Your task to perform on an android device: turn off improve location accuracy Image 0: 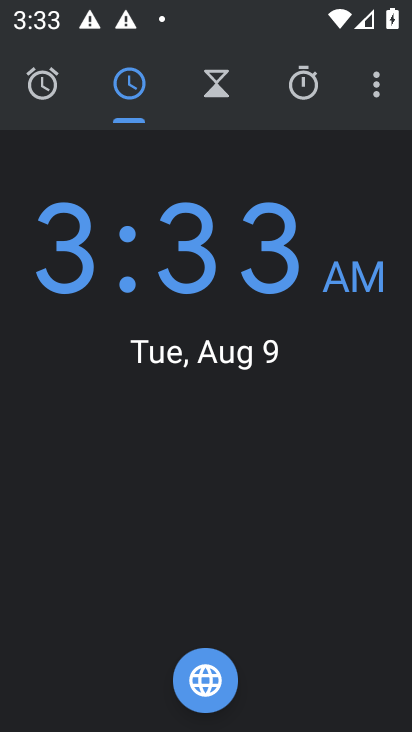
Step 0: press home button
Your task to perform on an android device: turn off improve location accuracy Image 1: 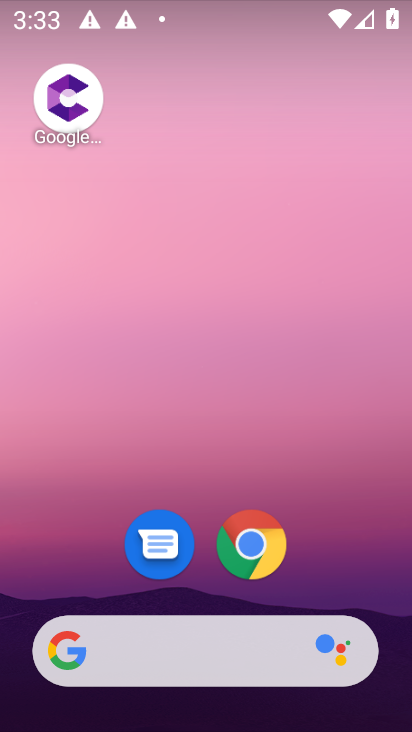
Step 1: drag from (116, 616) to (167, 192)
Your task to perform on an android device: turn off improve location accuracy Image 2: 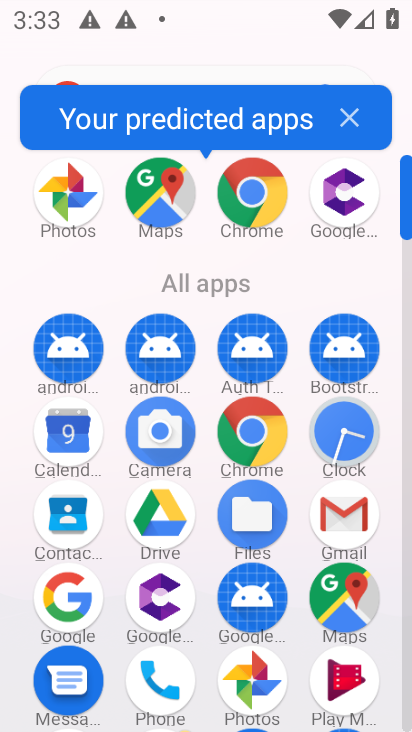
Step 2: drag from (287, 558) to (286, 294)
Your task to perform on an android device: turn off improve location accuracy Image 3: 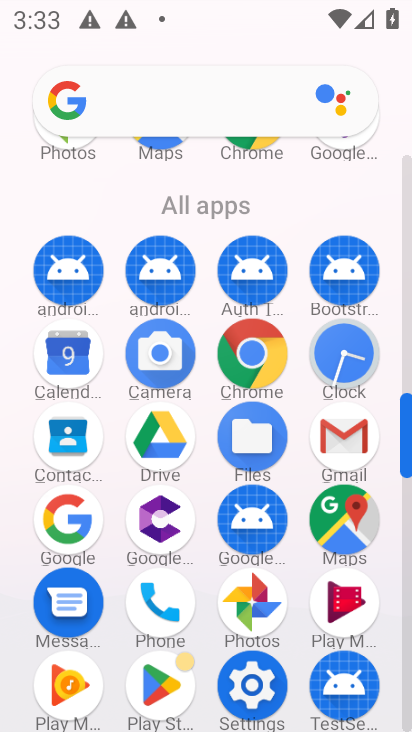
Step 3: click (246, 691)
Your task to perform on an android device: turn off improve location accuracy Image 4: 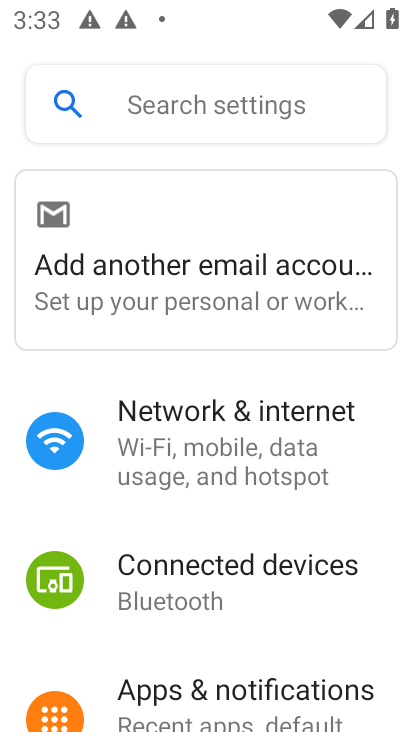
Step 4: drag from (174, 698) to (176, 408)
Your task to perform on an android device: turn off improve location accuracy Image 5: 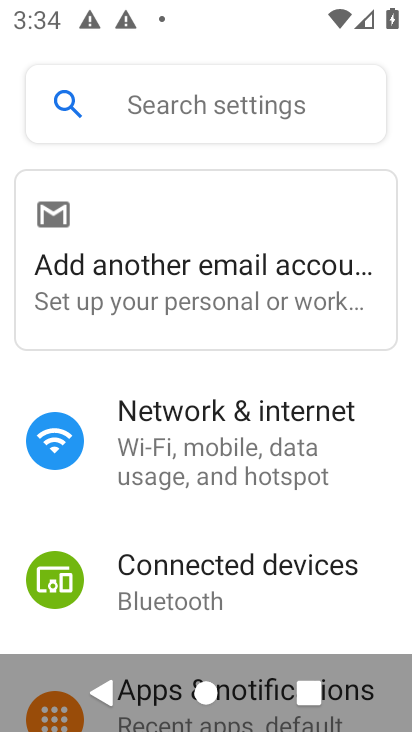
Step 5: drag from (185, 619) to (188, 283)
Your task to perform on an android device: turn off improve location accuracy Image 6: 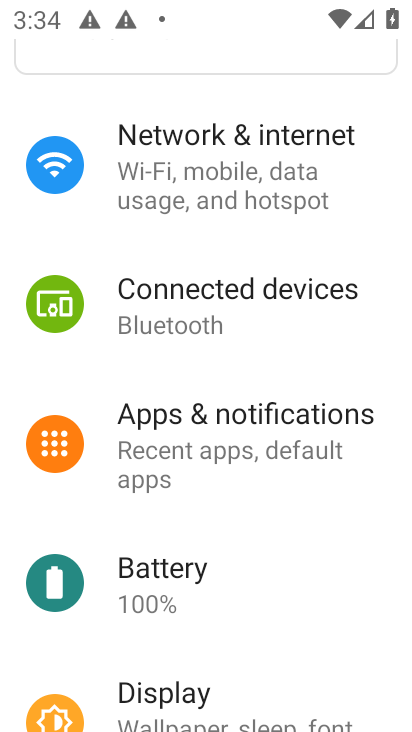
Step 6: drag from (170, 695) to (165, 408)
Your task to perform on an android device: turn off improve location accuracy Image 7: 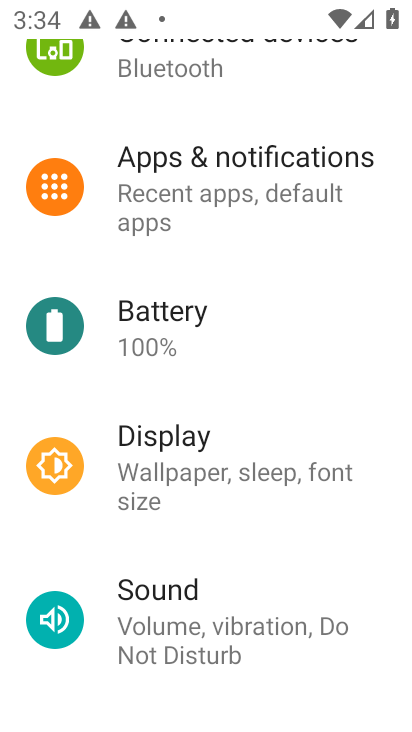
Step 7: drag from (181, 631) to (182, 311)
Your task to perform on an android device: turn off improve location accuracy Image 8: 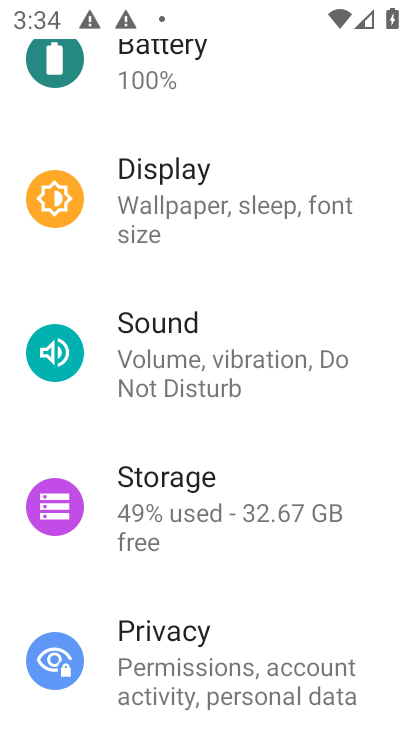
Step 8: drag from (178, 673) to (176, 393)
Your task to perform on an android device: turn off improve location accuracy Image 9: 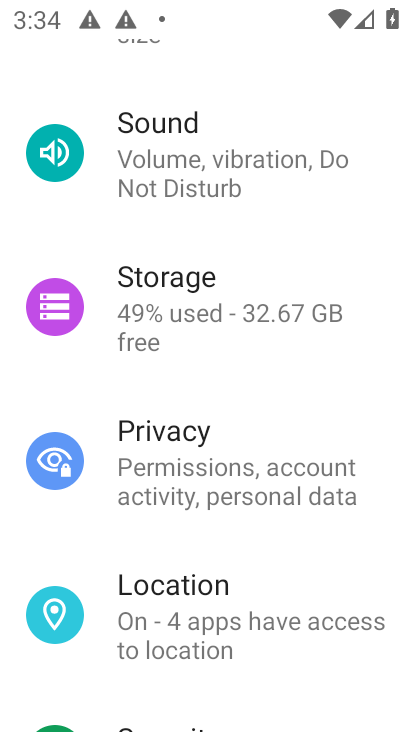
Step 9: click (184, 604)
Your task to perform on an android device: turn off improve location accuracy Image 10: 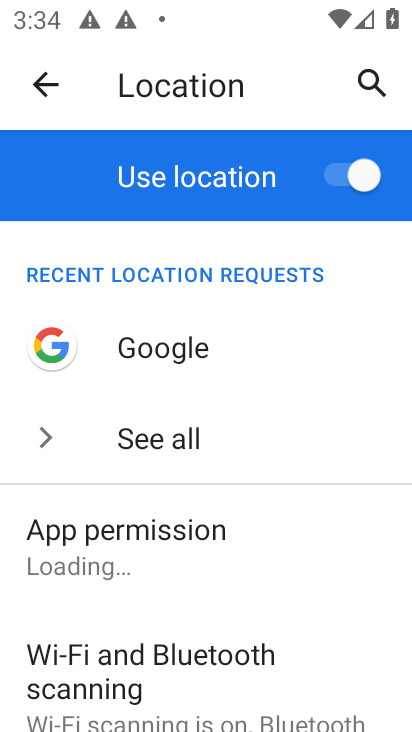
Step 10: drag from (154, 637) to (149, 321)
Your task to perform on an android device: turn off improve location accuracy Image 11: 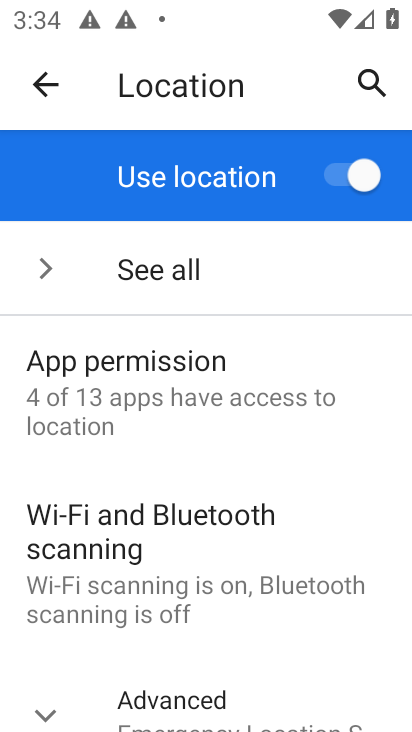
Step 11: click (176, 702)
Your task to perform on an android device: turn off improve location accuracy Image 12: 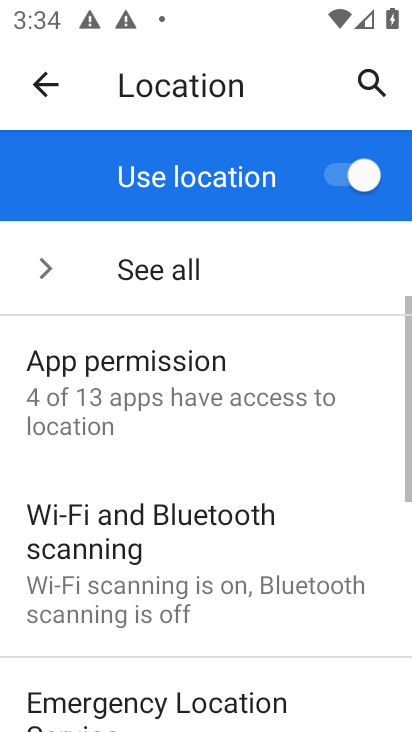
Step 12: drag from (230, 663) to (231, 282)
Your task to perform on an android device: turn off improve location accuracy Image 13: 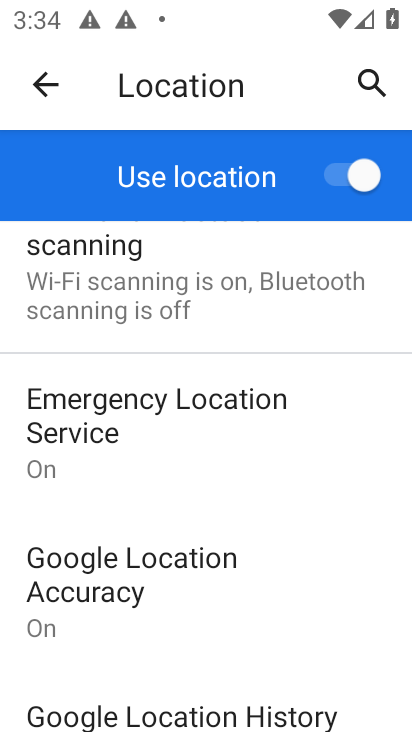
Step 13: drag from (182, 662) to (178, 386)
Your task to perform on an android device: turn off improve location accuracy Image 14: 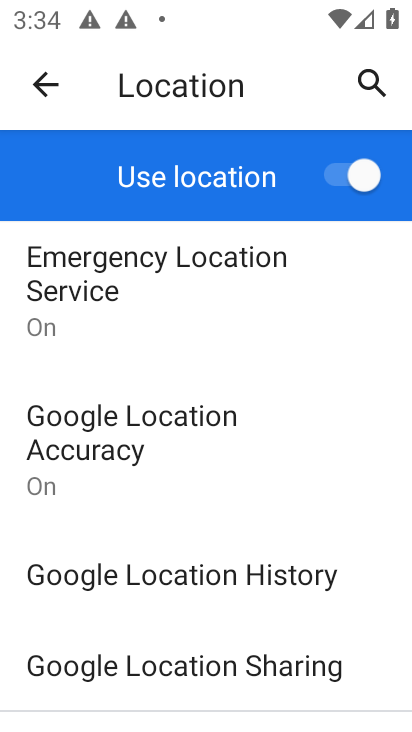
Step 14: click (155, 446)
Your task to perform on an android device: turn off improve location accuracy Image 15: 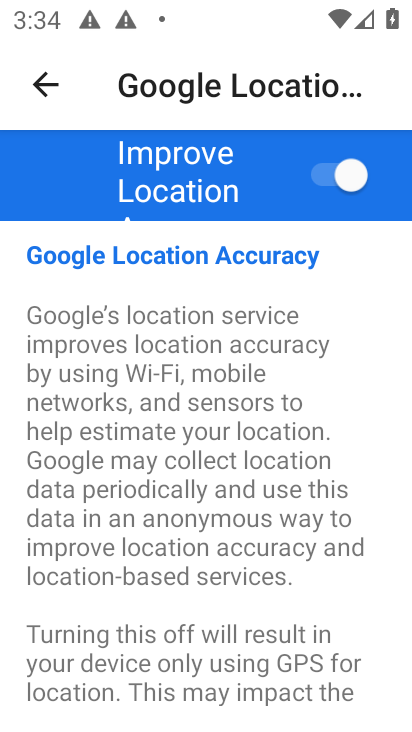
Step 15: click (323, 170)
Your task to perform on an android device: turn off improve location accuracy Image 16: 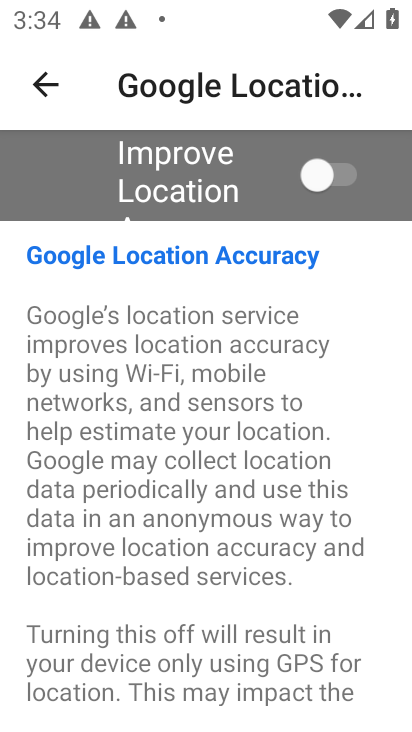
Step 16: task complete